Your task to perform on an android device: Show me the alarms in the clock app Image 0: 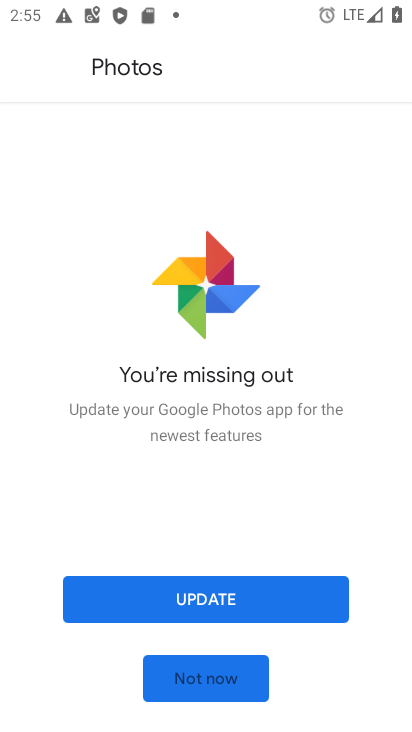
Step 0: press home button
Your task to perform on an android device: Show me the alarms in the clock app Image 1: 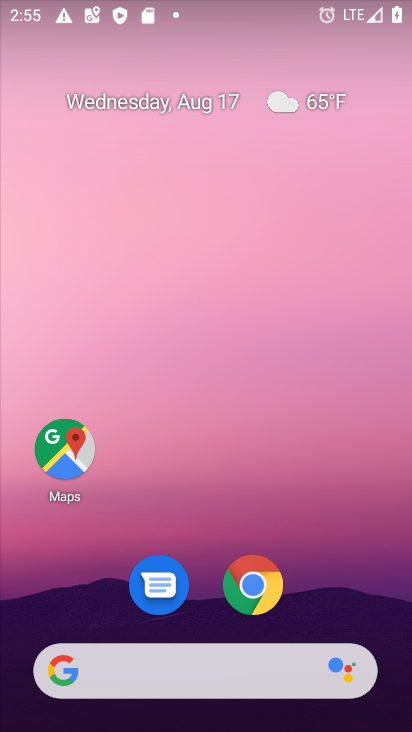
Step 1: drag from (344, 573) to (339, 70)
Your task to perform on an android device: Show me the alarms in the clock app Image 2: 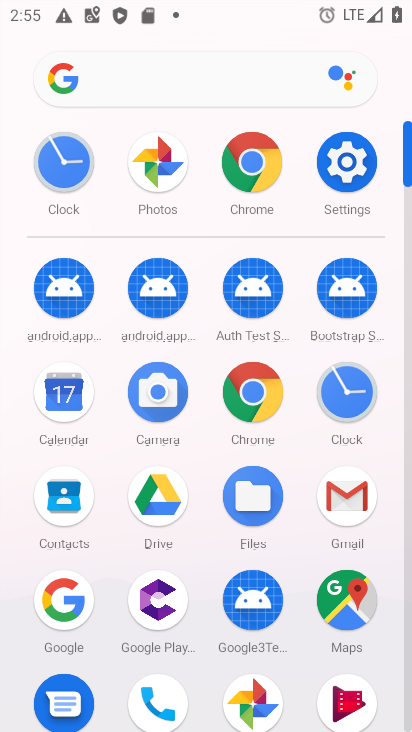
Step 2: click (334, 386)
Your task to perform on an android device: Show me the alarms in the clock app Image 3: 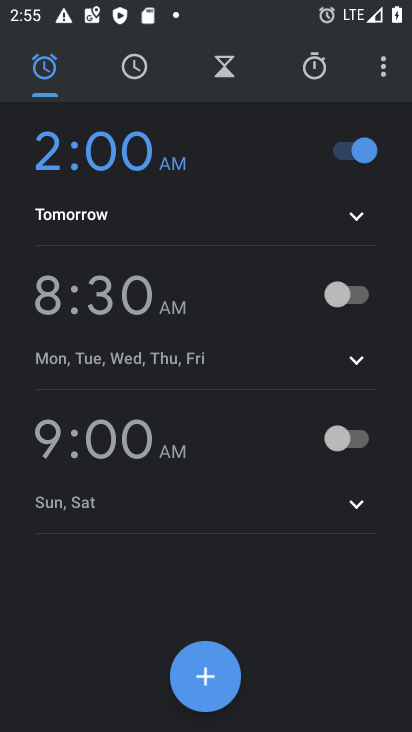
Step 3: click (52, 68)
Your task to perform on an android device: Show me the alarms in the clock app Image 4: 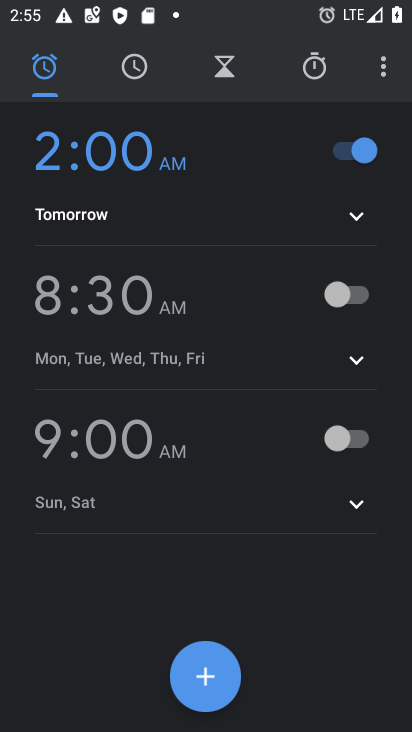
Step 4: task complete